Your task to perform on an android device: Is it going to rain tomorrow? Image 0: 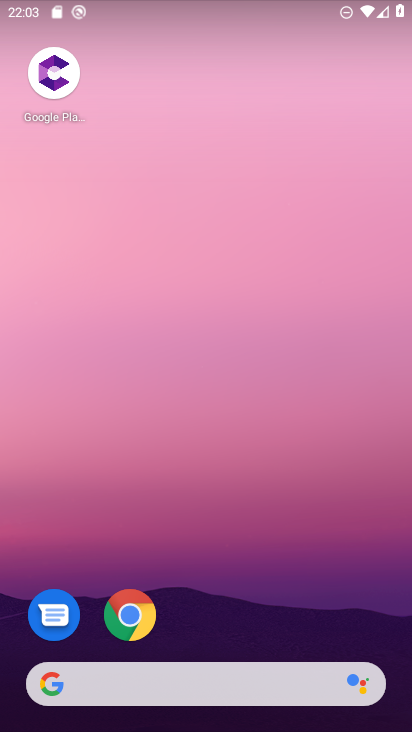
Step 0: drag from (312, 628) to (334, 149)
Your task to perform on an android device: Is it going to rain tomorrow? Image 1: 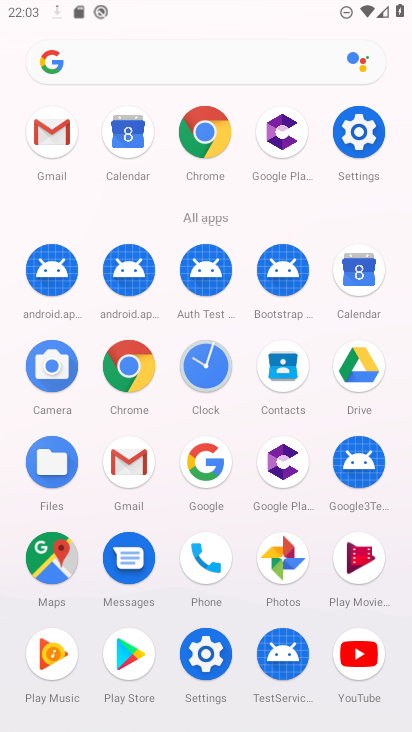
Step 1: press home button
Your task to perform on an android device: Is it going to rain tomorrow? Image 2: 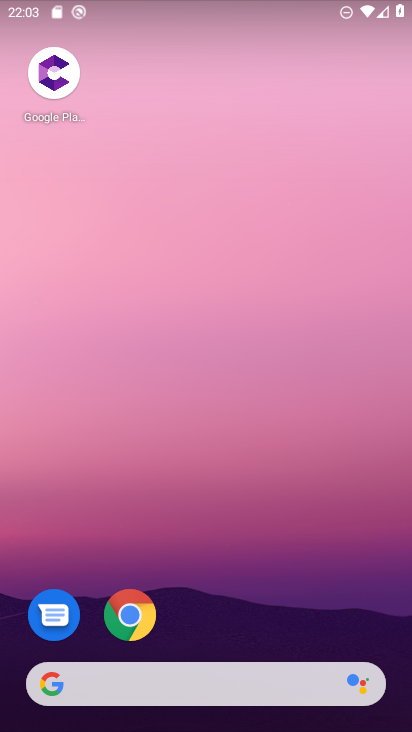
Step 2: press home button
Your task to perform on an android device: Is it going to rain tomorrow? Image 3: 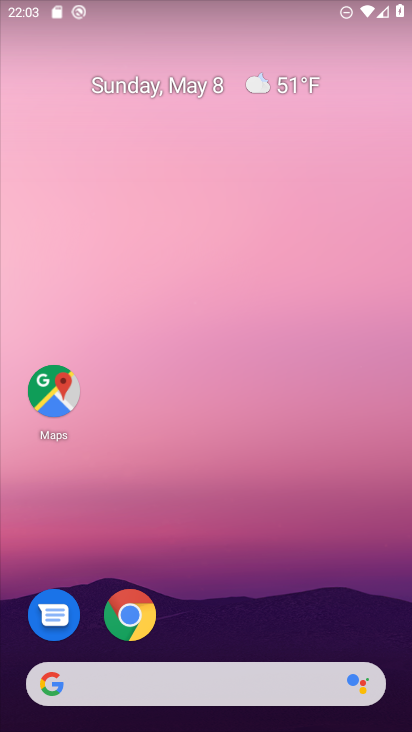
Step 3: press home button
Your task to perform on an android device: Is it going to rain tomorrow? Image 4: 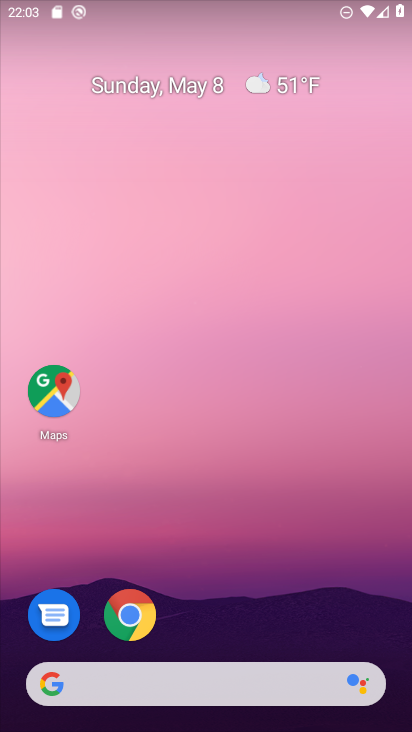
Step 4: click (304, 85)
Your task to perform on an android device: Is it going to rain tomorrow? Image 5: 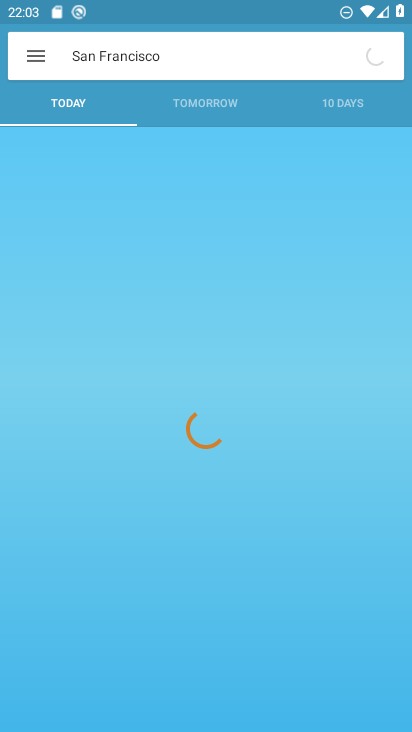
Step 5: click (219, 94)
Your task to perform on an android device: Is it going to rain tomorrow? Image 6: 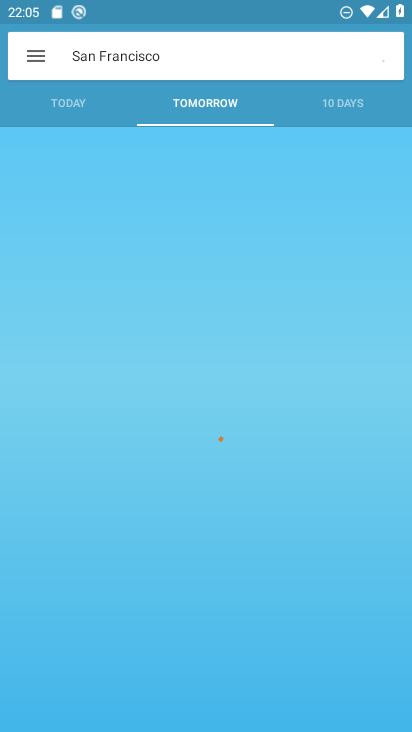
Step 6: click (87, 101)
Your task to perform on an android device: Is it going to rain tomorrow? Image 7: 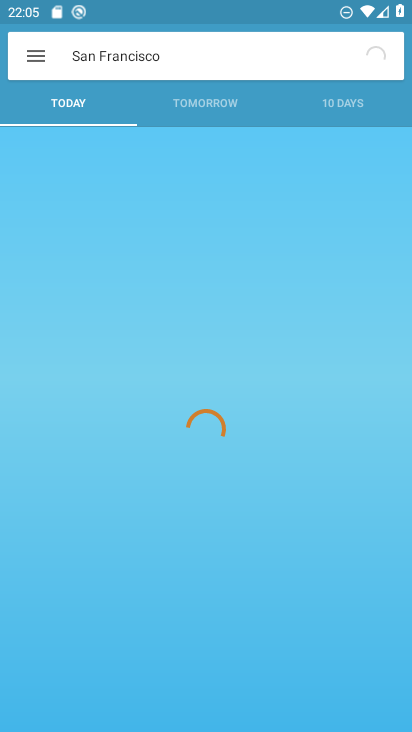
Step 7: click (214, 101)
Your task to perform on an android device: Is it going to rain tomorrow? Image 8: 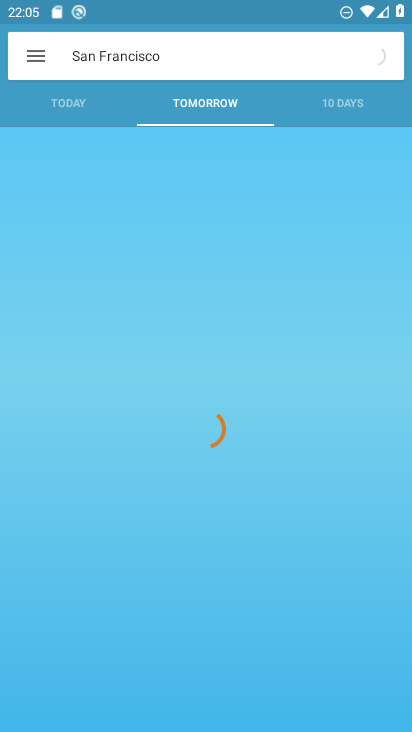
Step 8: task complete